Your task to perform on an android device: Toggle the flashlight Image 0: 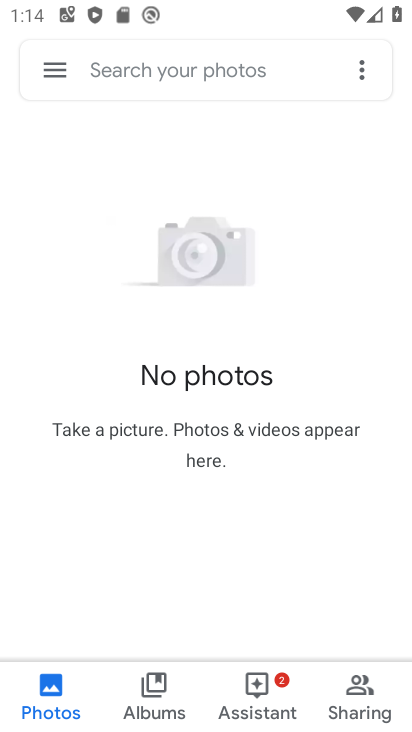
Step 0: drag from (218, 2) to (279, 402)
Your task to perform on an android device: Toggle the flashlight Image 1: 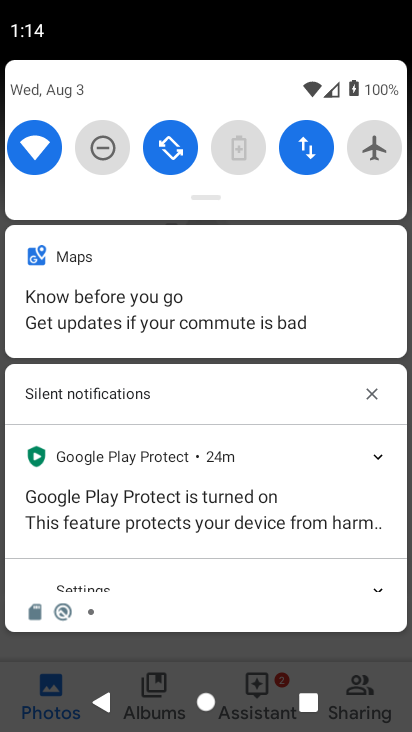
Step 1: task complete